Your task to perform on an android device: snooze an email in the gmail app Image 0: 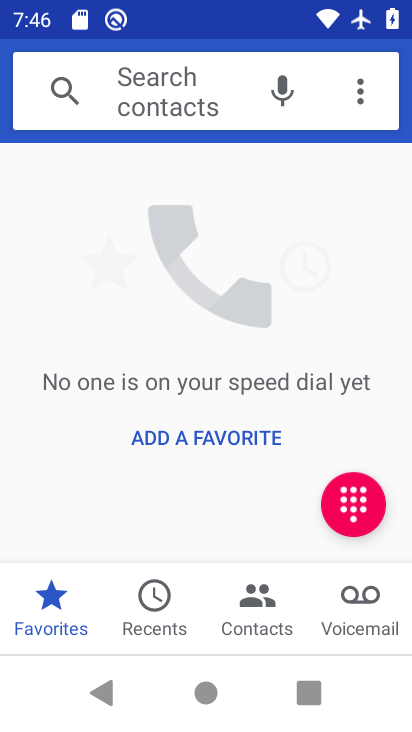
Step 0: press home button
Your task to perform on an android device: snooze an email in the gmail app Image 1: 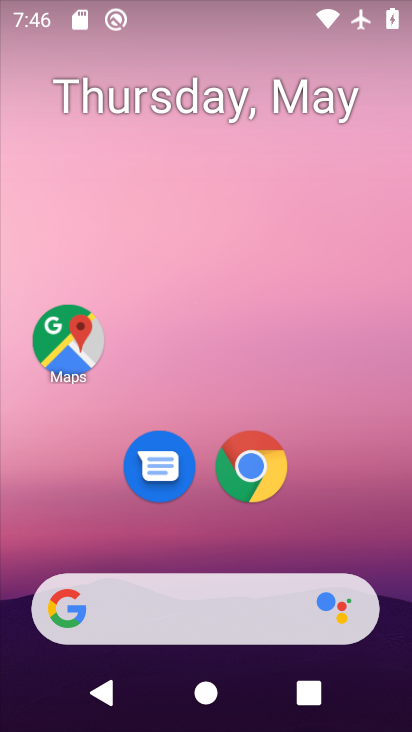
Step 1: drag from (300, 537) to (300, 124)
Your task to perform on an android device: snooze an email in the gmail app Image 2: 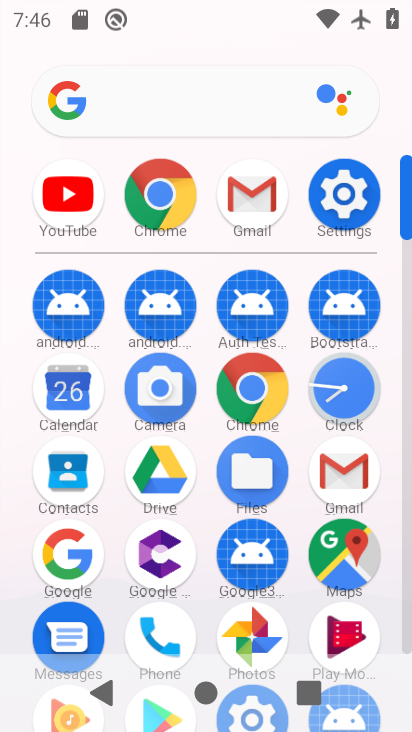
Step 2: click (323, 198)
Your task to perform on an android device: snooze an email in the gmail app Image 3: 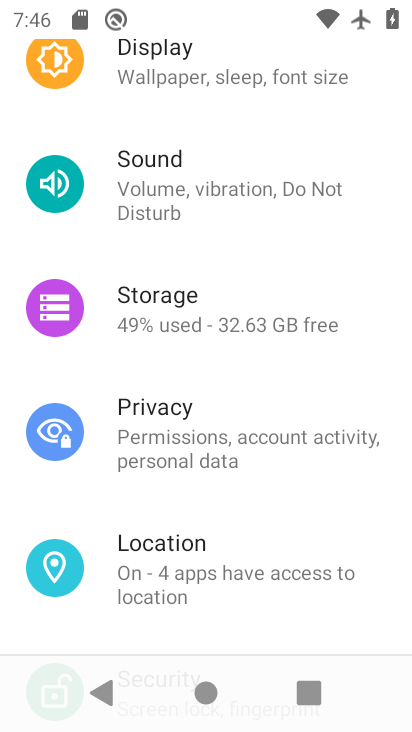
Step 3: press home button
Your task to perform on an android device: snooze an email in the gmail app Image 4: 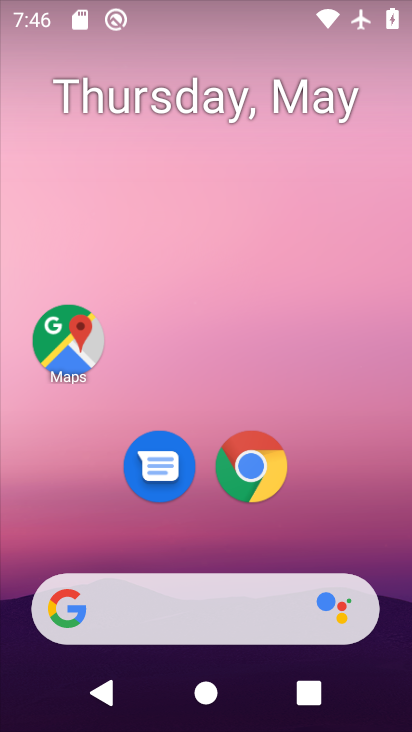
Step 4: drag from (73, 557) to (178, 7)
Your task to perform on an android device: snooze an email in the gmail app Image 5: 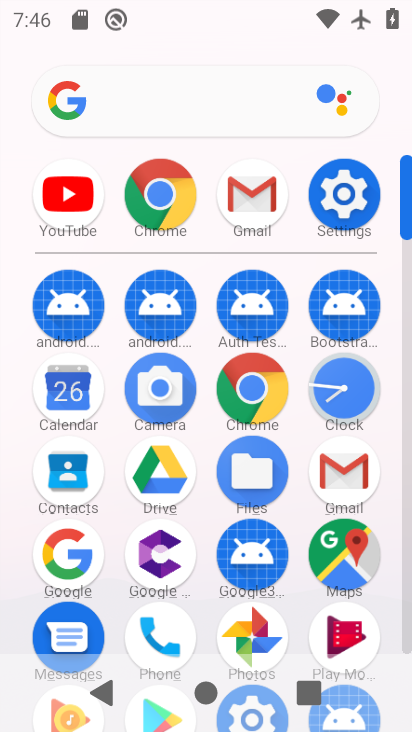
Step 5: click (245, 217)
Your task to perform on an android device: snooze an email in the gmail app Image 6: 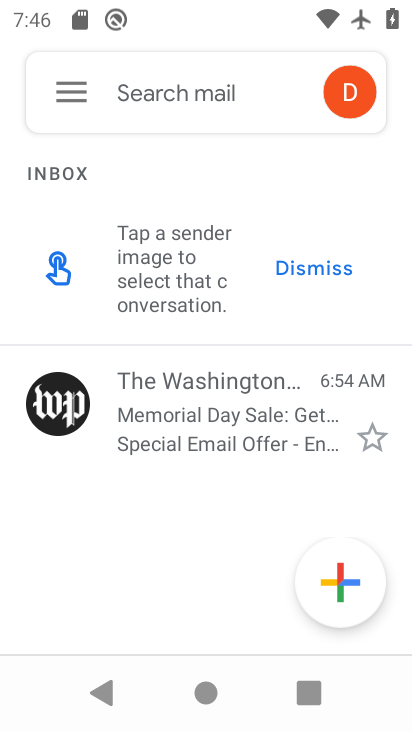
Step 6: click (49, 99)
Your task to perform on an android device: snooze an email in the gmail app Image 7: 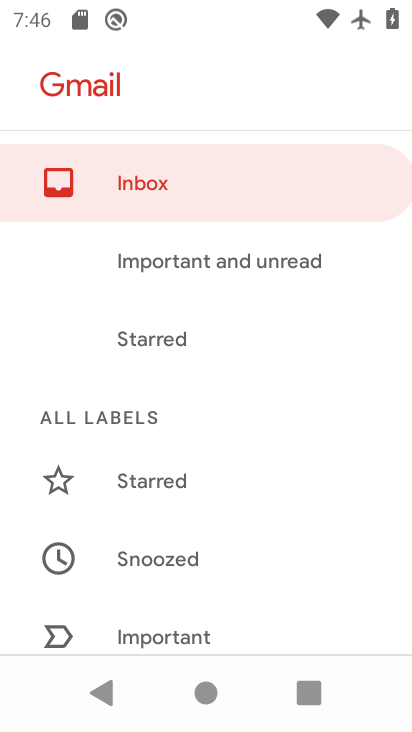
Step 7: drag from (111, 663) to (160, 287)
Your task to perform on an android device: snooze an email in the gmail app Image 8: 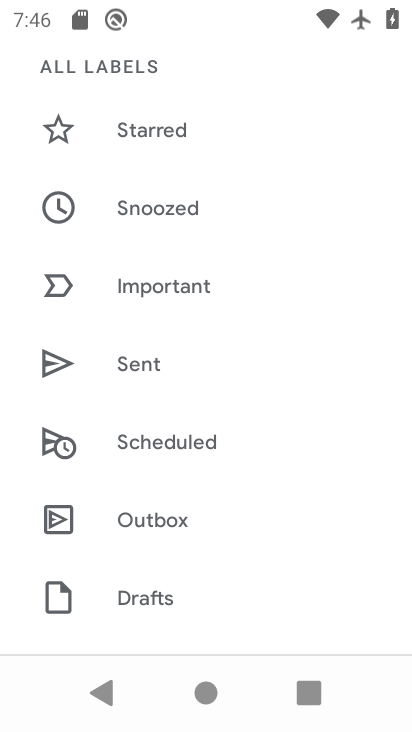
Step 8: click (154, 216)
Your task to perform on an android device: snooze an email in the gmail app Image 9: 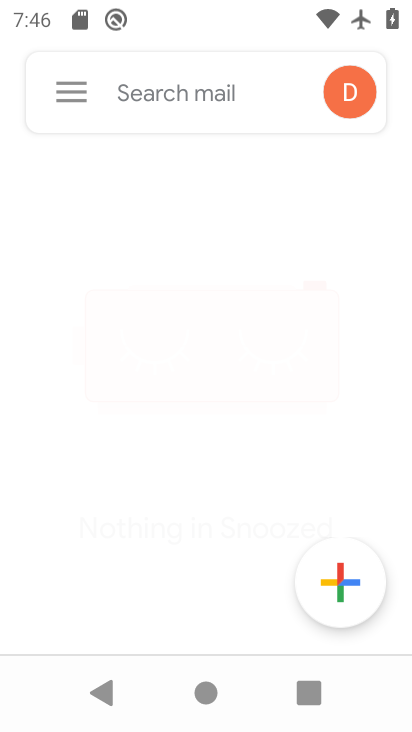
Step 9: task complete